Your task to perform on an android device: Open settings on Google Maps Image 0: 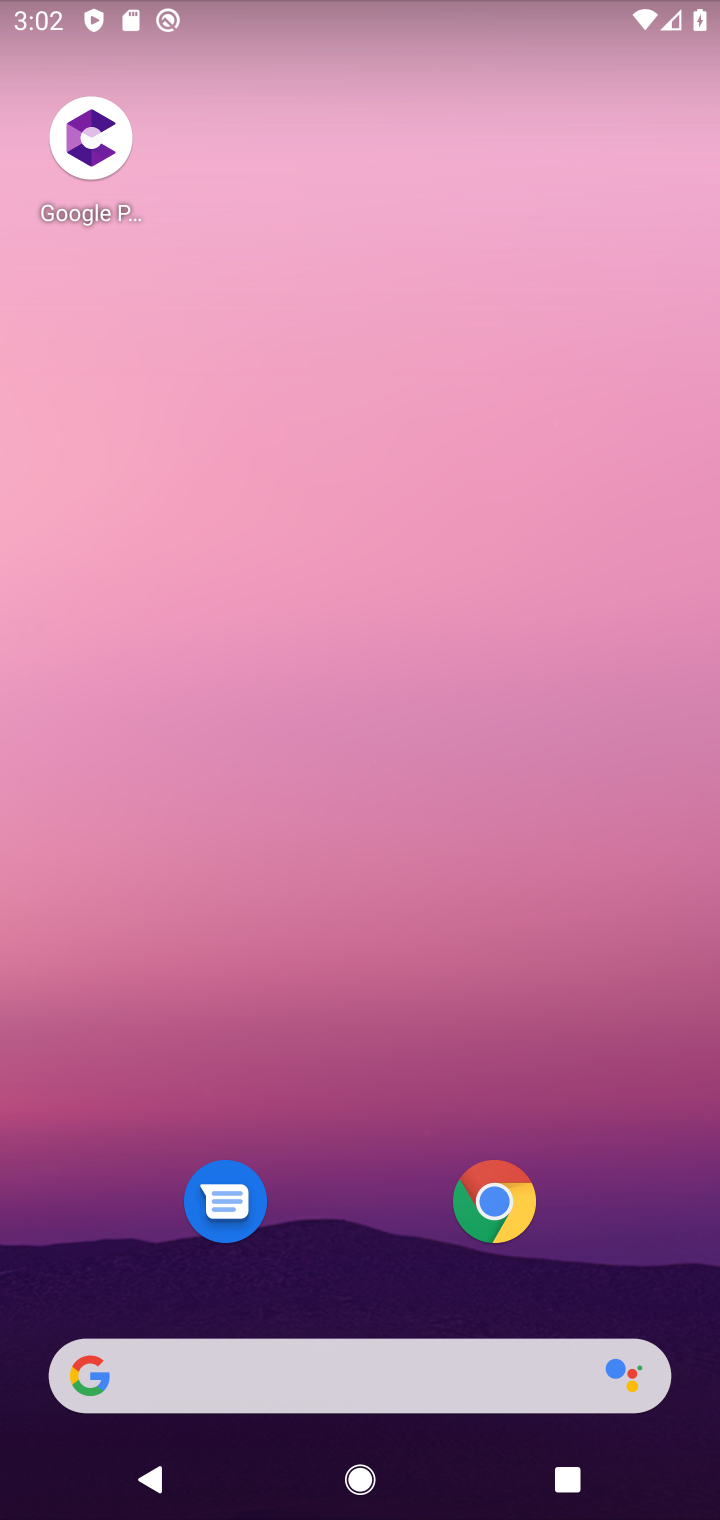
Step 0: drag from (363, 1257) to (333, 10)
Your task to perform on an android device: Open settings on Google Maps Image 1: 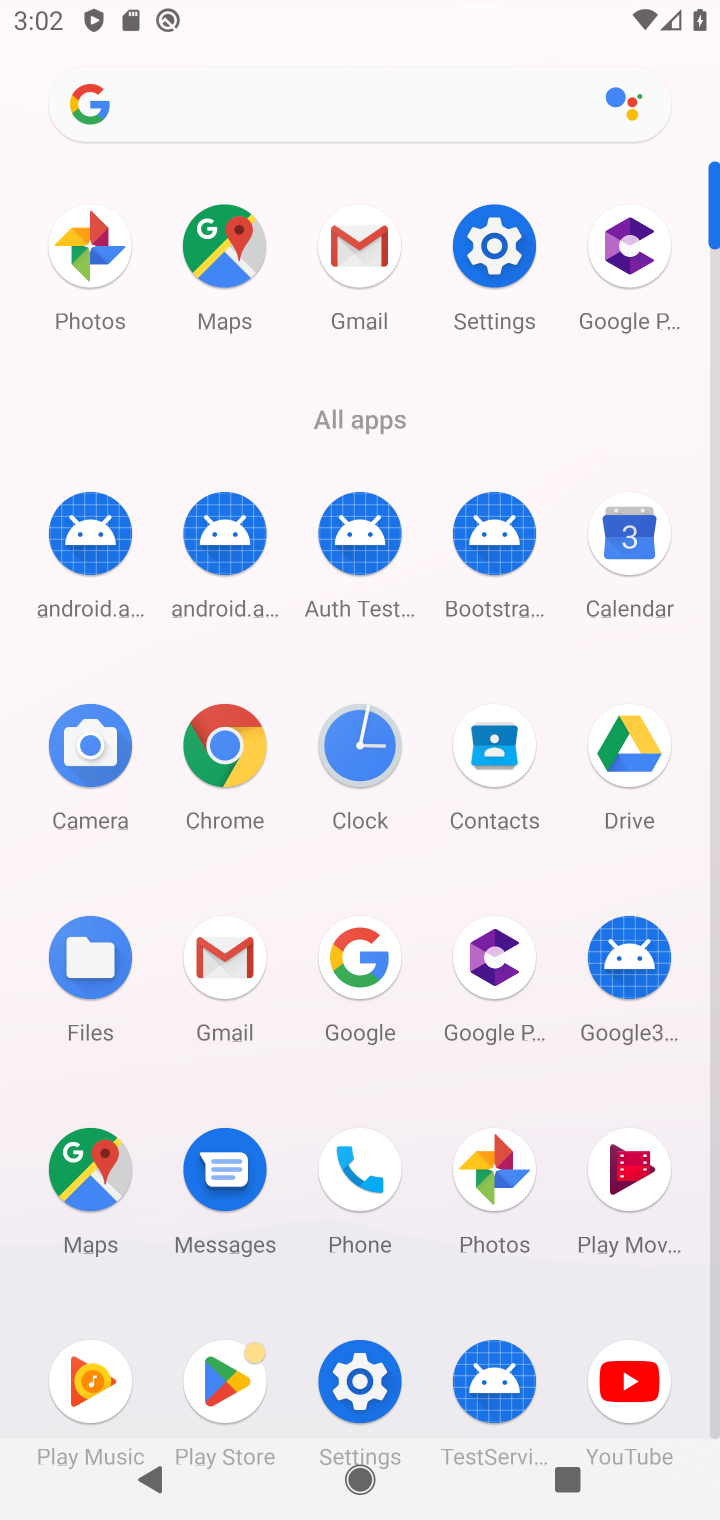
Step 1: click (92, 1162)
Your task to perform on an android device: Open settings on Google Maps Image 2: 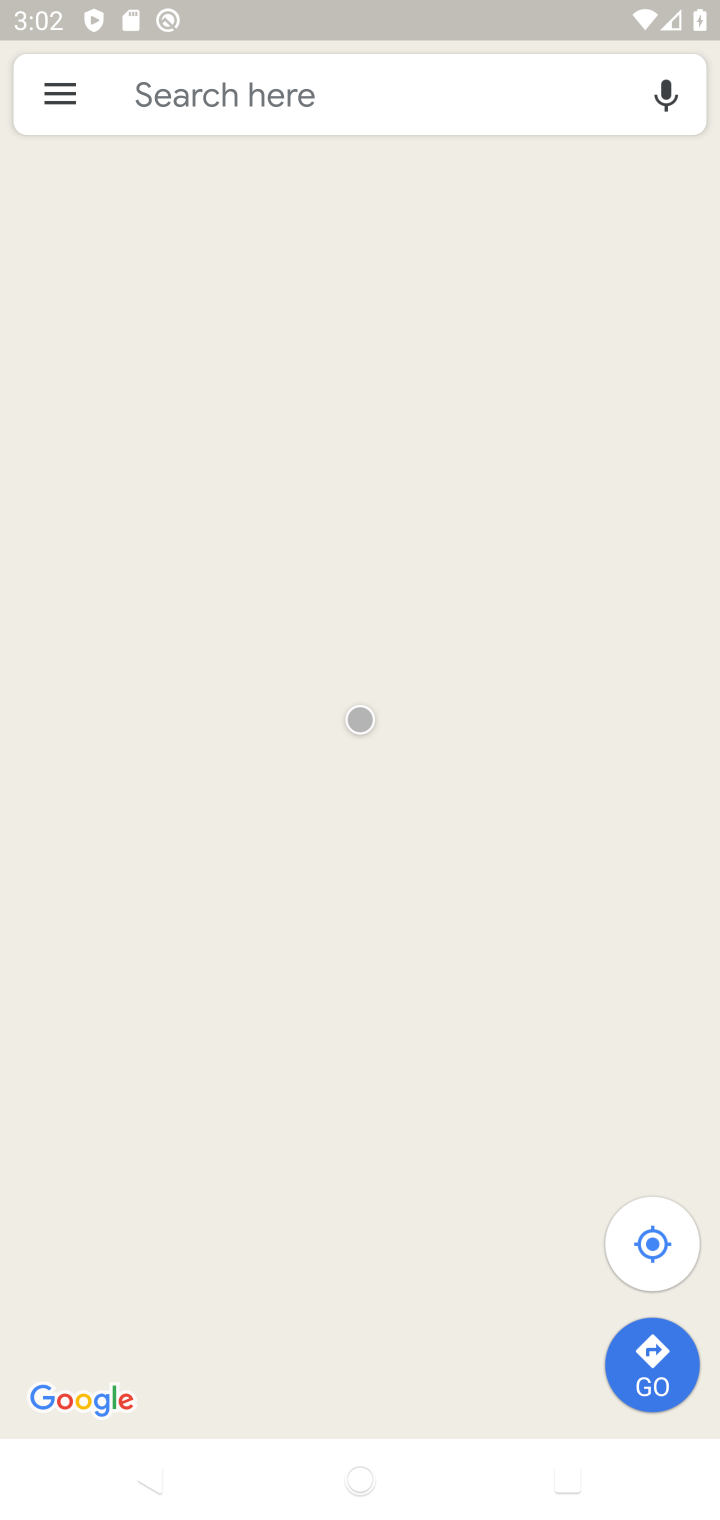
Step 2: click (58, 121)
Your task to perform on an android device: Open settings on Google Maps Image 3: 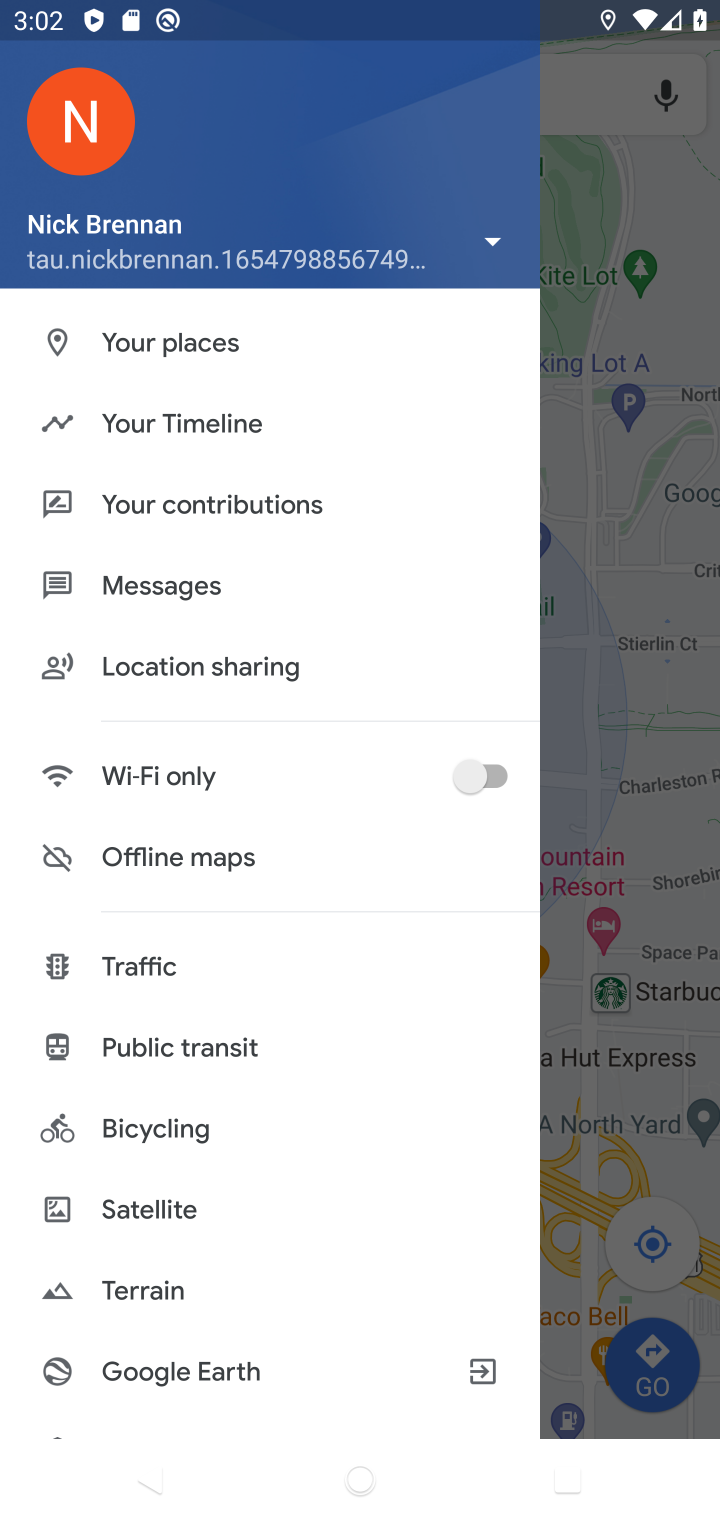
Step 3: drag from (129, 1314) to (0, 423)
Your task to perform on an android device: Open settings on Google Maps Image 4: 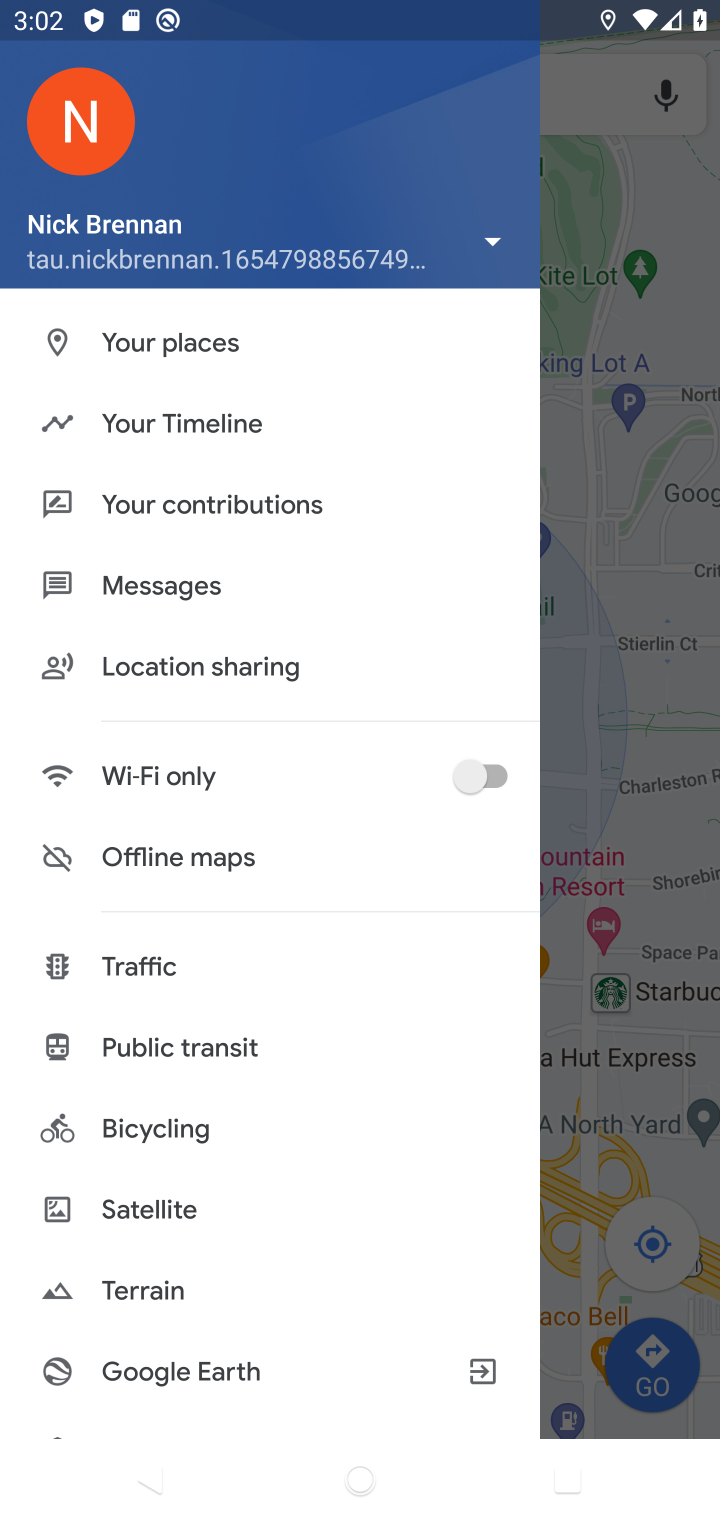
Step 4: drag from (213, 1308) to (212, 235)
Your task to perform on an android device: Open settings on Google Maps Image 5: 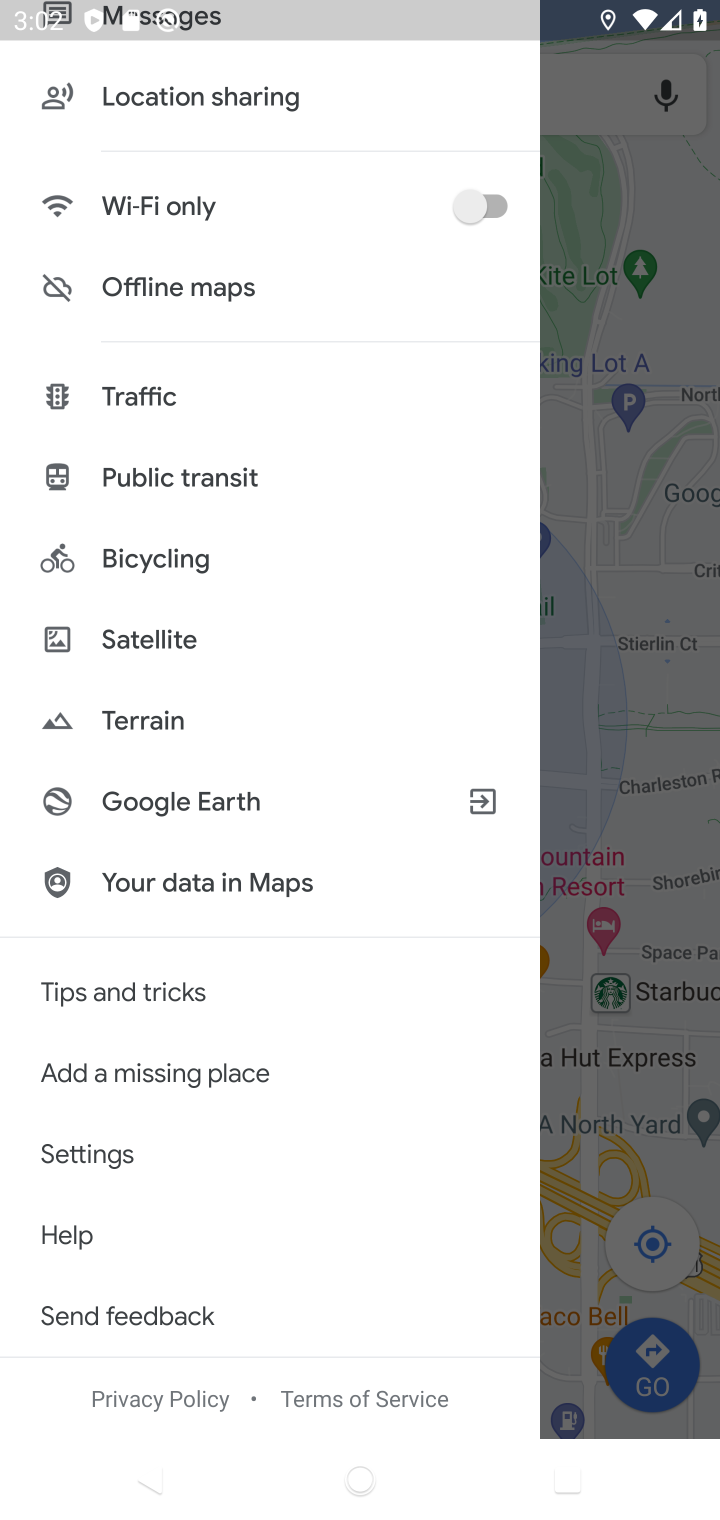
Step 5: click (183, 1160)
Your task to perform on an android device: Open settings on Google Maps Image 6: 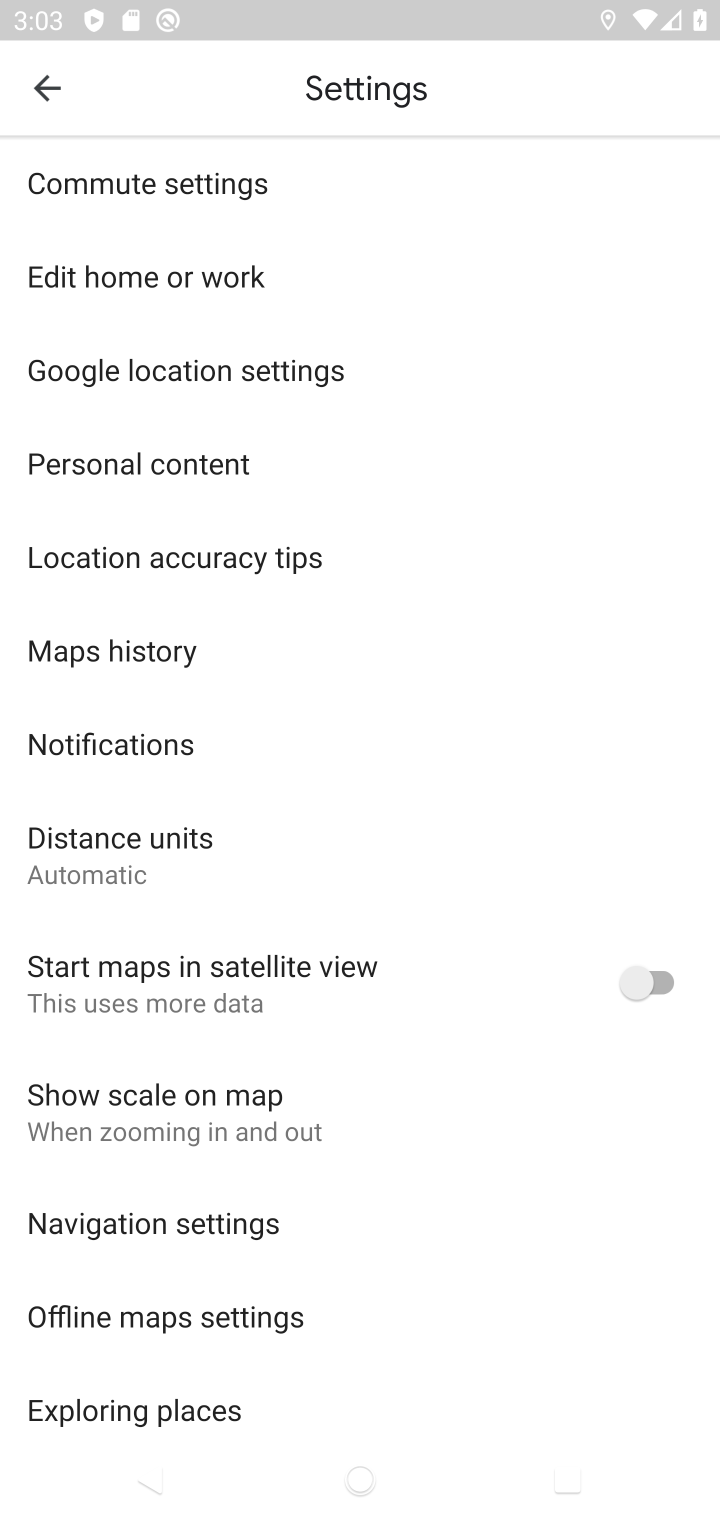
Step 6: task complete